Your task to perform on an android device: Open Google Maps Image 0: 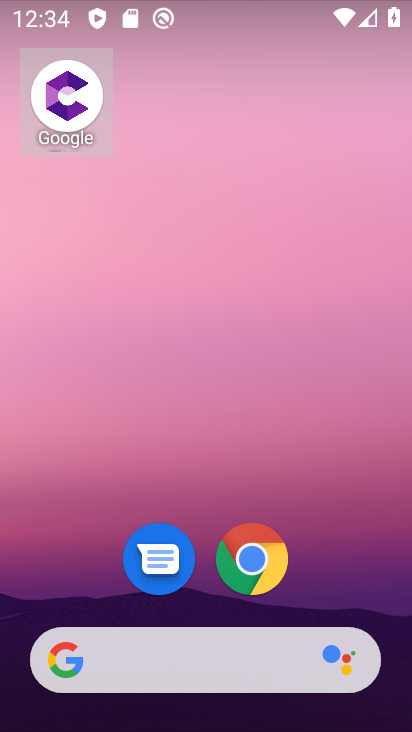
Step 0: drag from (242, 606) to (237, 186)
Your task to perform on an android device: Open Google Maps Image 1: 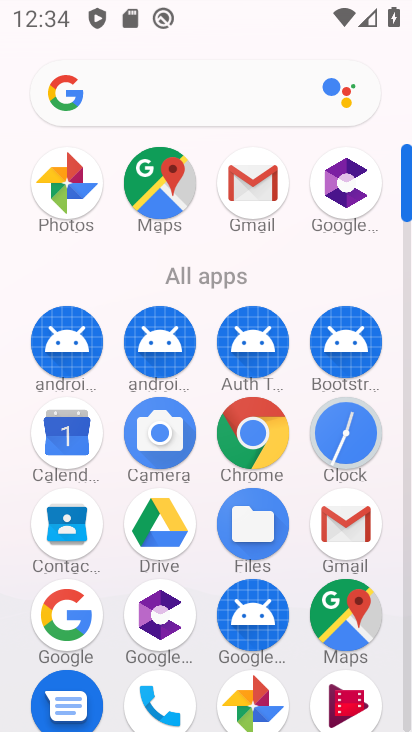
Step 1: click (349, 630)
Your task to perform on an android device: Open Google Maps Image 2: 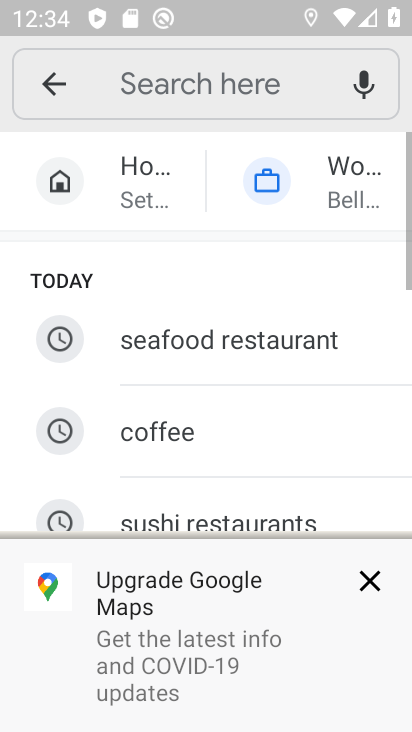
Step 2: click (281, 91)
Your task to perform on an android device: Open Google Maps Image 3: 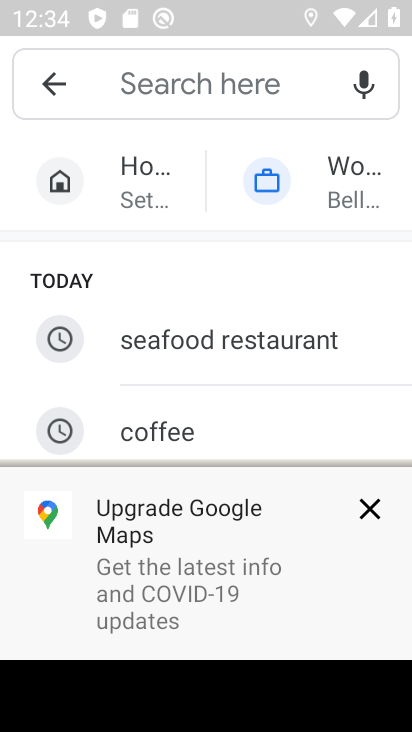
Step 3: click (54, 76)
Your task to perform on an android device: Open Google Maps Image 4: 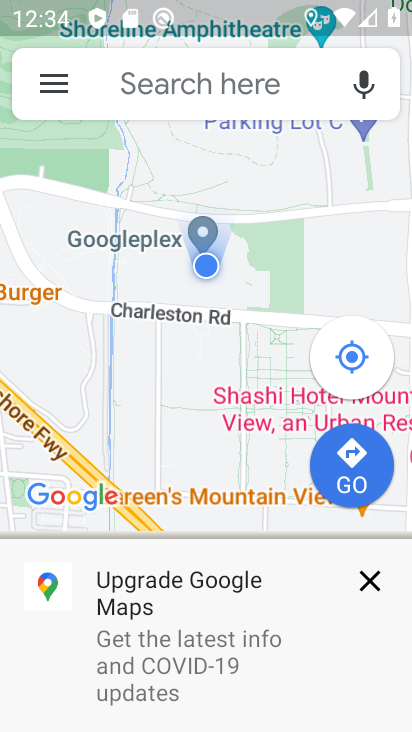
Step 4: task complete